Your task to perform on an android device: refresh tabs in the chrome app Image 0: 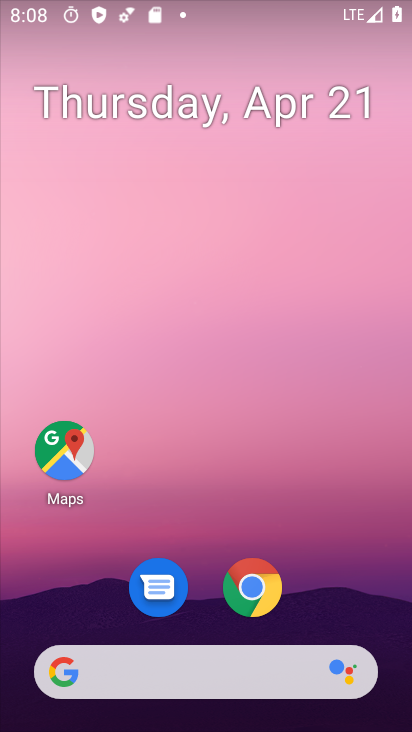
Step 0: click (248, 589)
Your task to perform on an android device: refresh tabs in the chrome app Image 1: 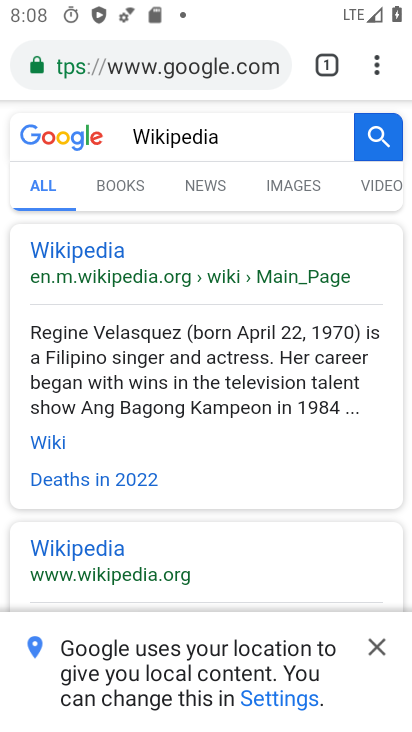
Step 1: click (374, 64)
Your task to perform on an android device: refresh tabs in the chrome app Image 2: 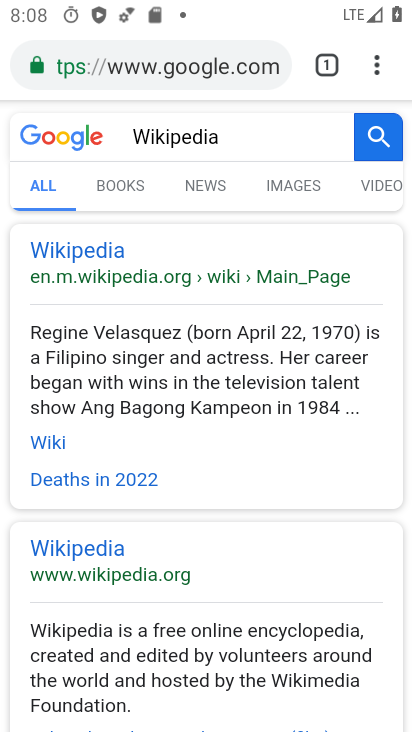
Step 2: click (374, 64)
Your task to perform on an android device: refresh tabs in the chrome app Image 3: 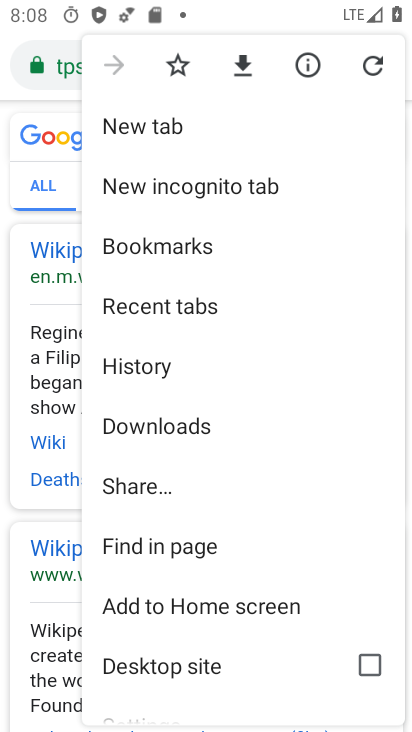
Step 3: click (374, 64)
Your task to perform on an android device: refresh tabs in the chrome app Image 4: 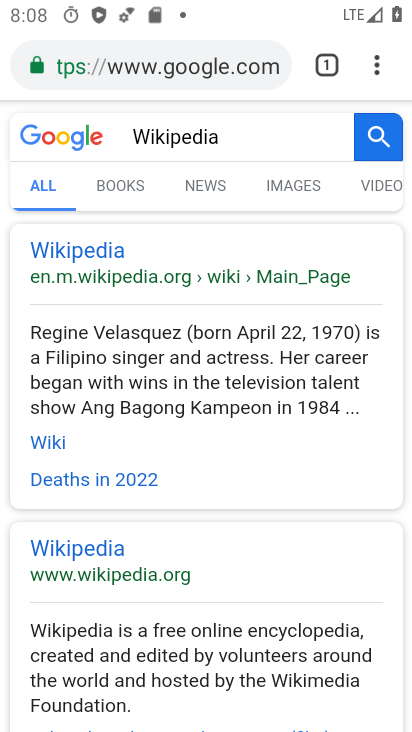
Step 4: task complete